Your task to perform on an android device: Go to sound settings Image 0: 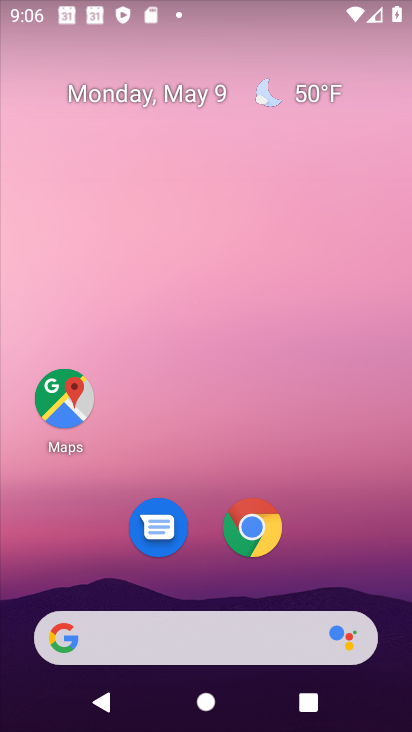
Step 0: drag from (207, 571) to (263, 152)
Your task to perform on an android device: Go to sound settings Image 1: 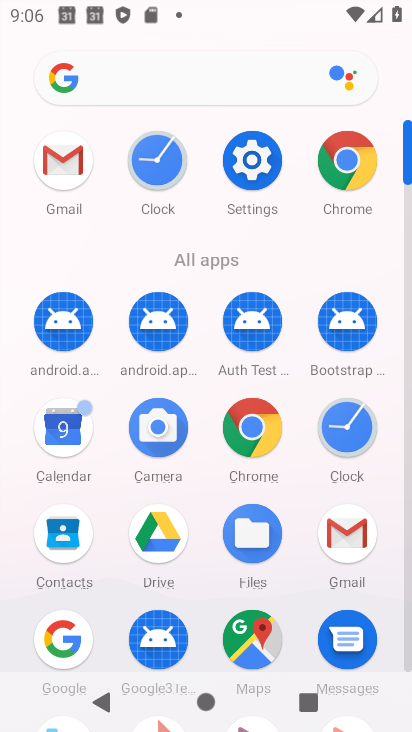
Step 1: click (248, 188)
Your task to perform on an android device: Go to sound settings Image 2: 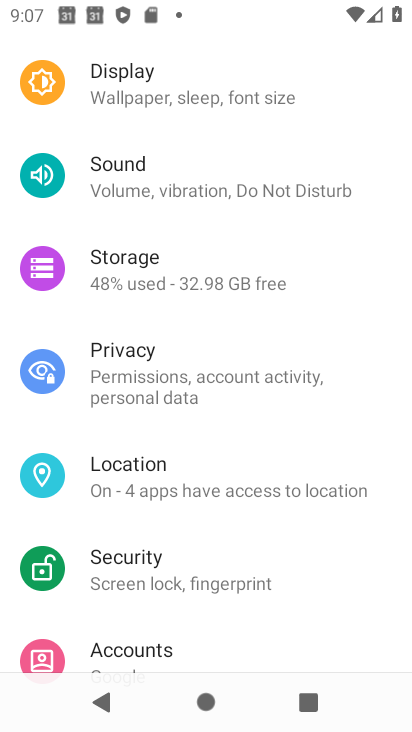
Step 2: click (214, 203)
Your task to perform on an android device: Go to sound settings Image 3: 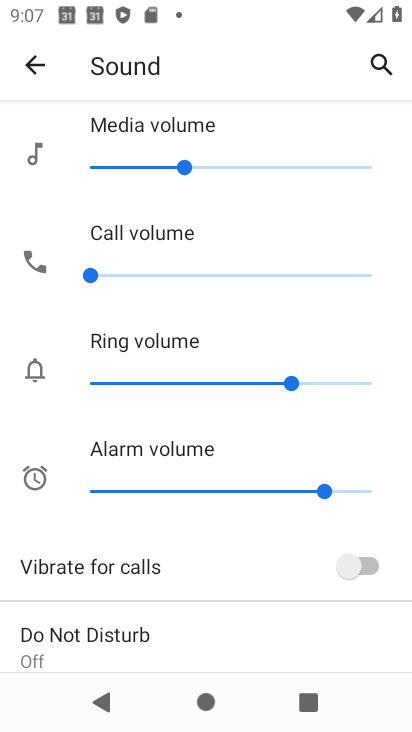
Step 3: task complete